Your task to perform on an android device: Open accessibility settings Image 0: 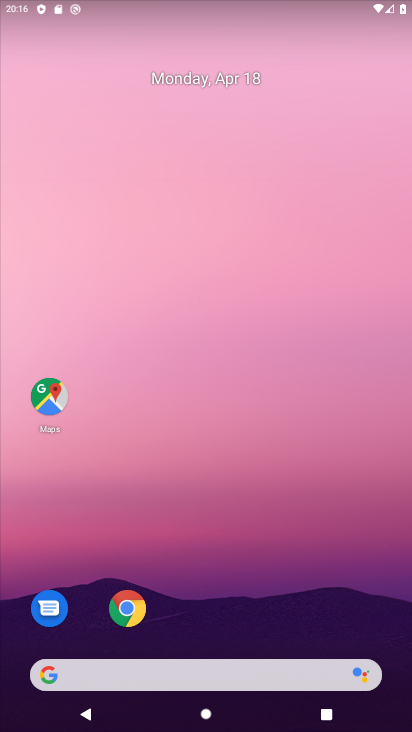
Step 0: drag from (239, 590) to (258, 196)
Your task to perform on an android device: Open accessibility settings Image 1: 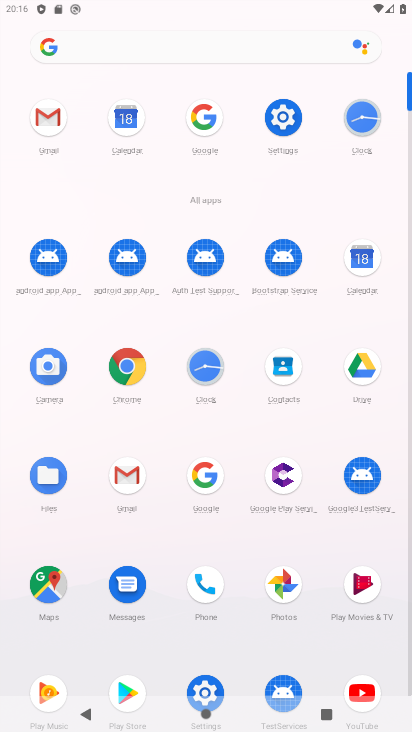
Step 1: click (282, 118)
Your task to perform on an android device: Open accessibility settings Image 2: 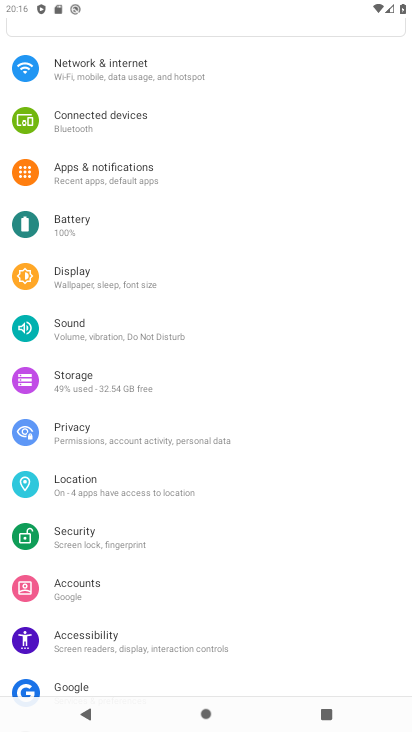
Step 2: click (106, 643)
Your task to perform on an android device: Open accessibility settings Image 3: 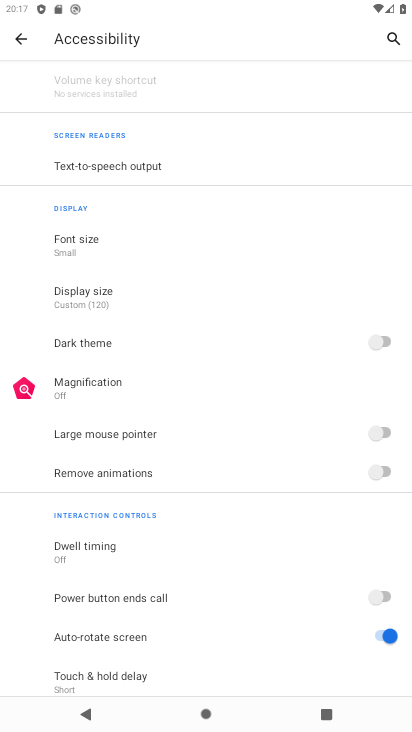
Step 3: task complete